Your task to perform on an android device: star an email in the gmail app Image 0: 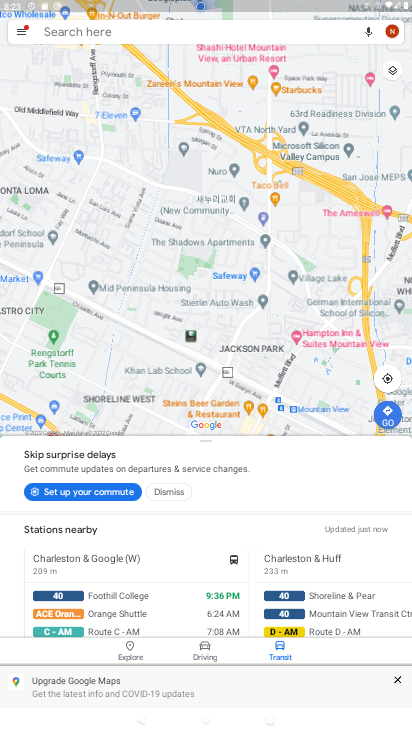
Step 0: press home button
Your task to perform on an android device: star an email in the gmail app Image 1: 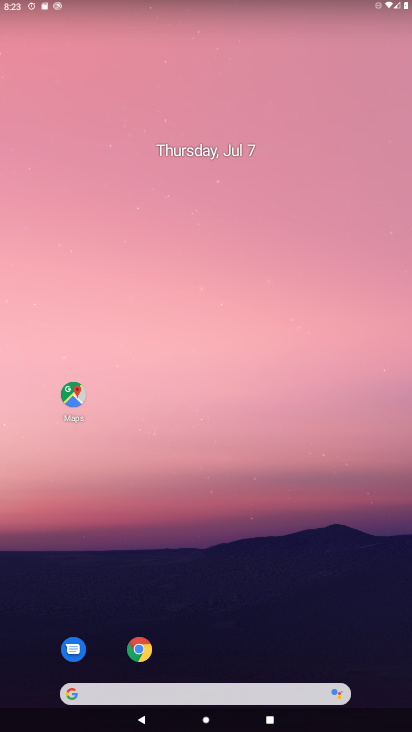
Step 1: drag from (205, 657) to (224, 48)
Your task to perform on an android device: star an email in the gmail app Image 2: 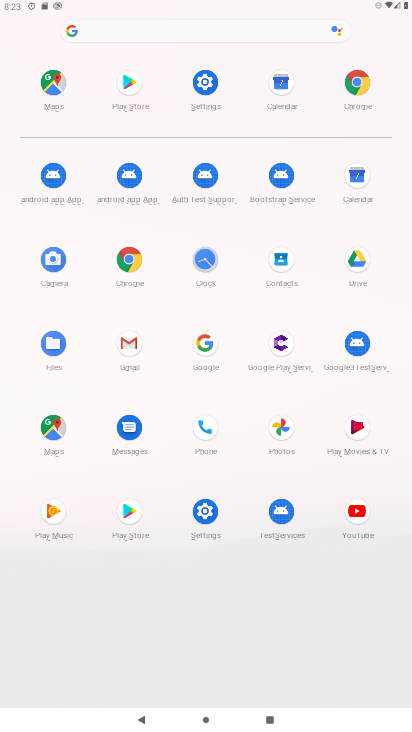
Step 2: click (125, 342)
Your task to perform on an android device: star an email in the gmail app Image 3: 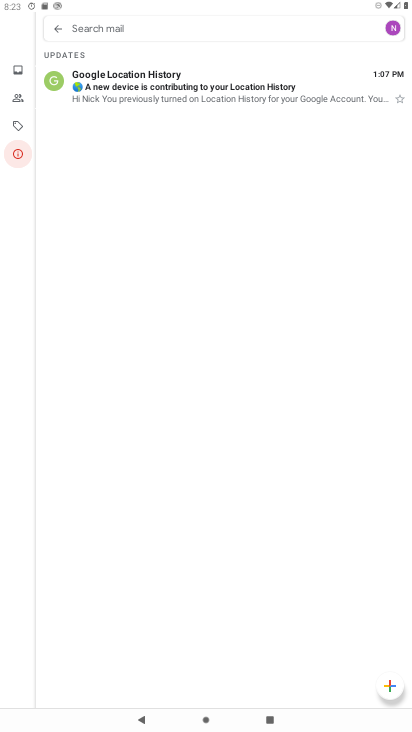
Step 3: click (52, 83)
Your task to perform on an android device: star an email in the gmail app Image 4: 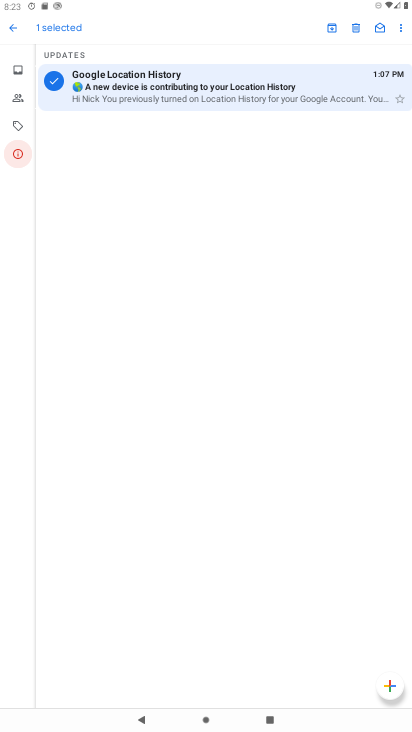
Step 4: click (401, 98)
Your task to perform on an android device: star an email in the gmail app Image 5: 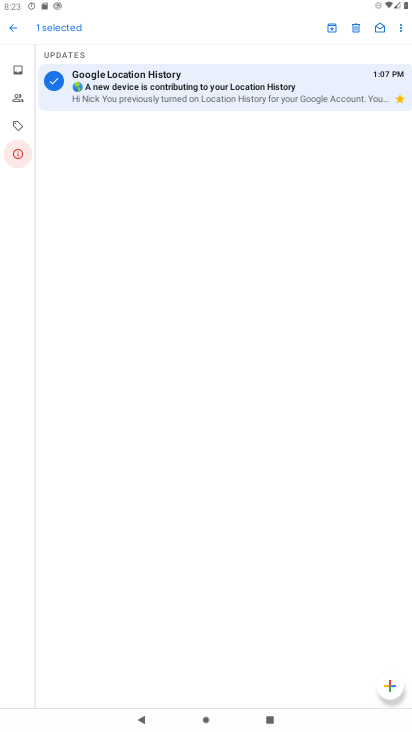
Step 5: task complete